Your task to perform on an android device: Go to Google Image 0: 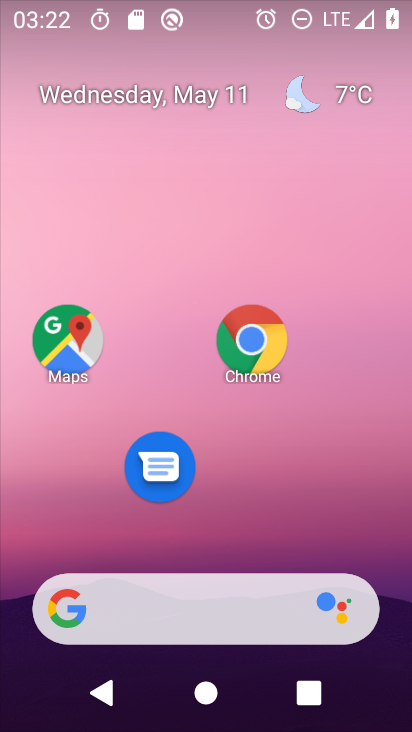
Step 0: drag from (192, 605) to (305, 176)
Your task to perform on an android device: Go to Google Image 1: 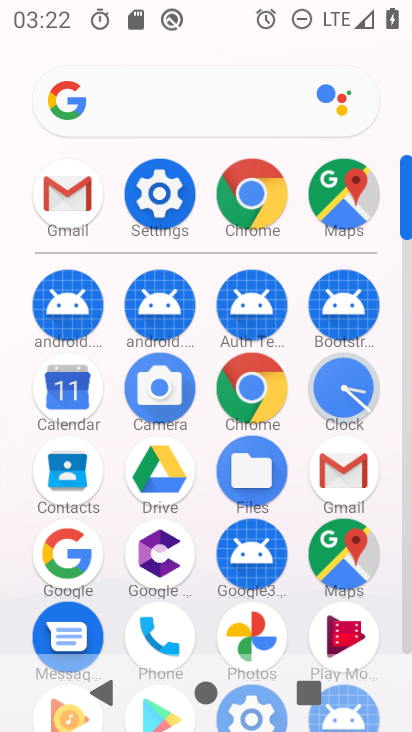
Step 1: click (77, 560)
Your task to perform on an android device: Go to Google Image 2: 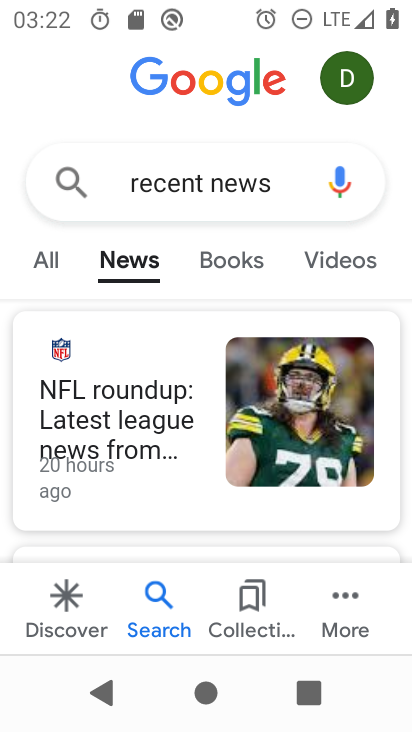
Step 2: task complete